Your task to perform on an android device: Open Android settings Image 0: 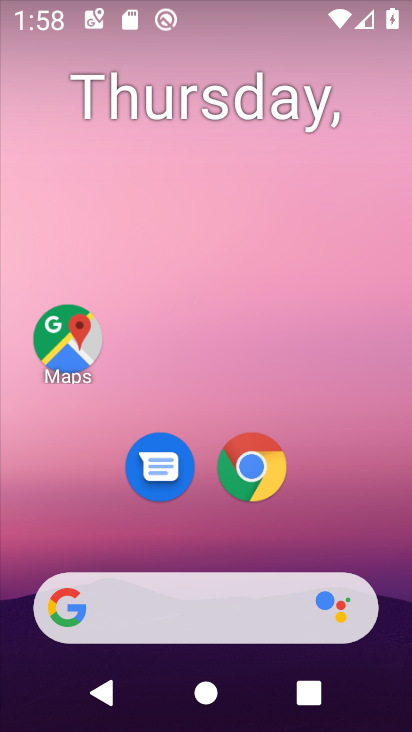
Step 0: drag from (194, 554) to (119, 0)
Your task to perform on an android device: Open Android settings Image 1: 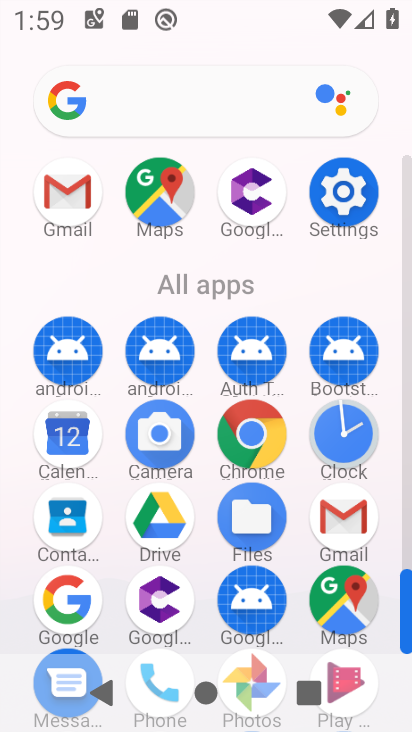
Step 1: click (331, 164)
Your task to perform on an android device: Open Android settings Image 2: 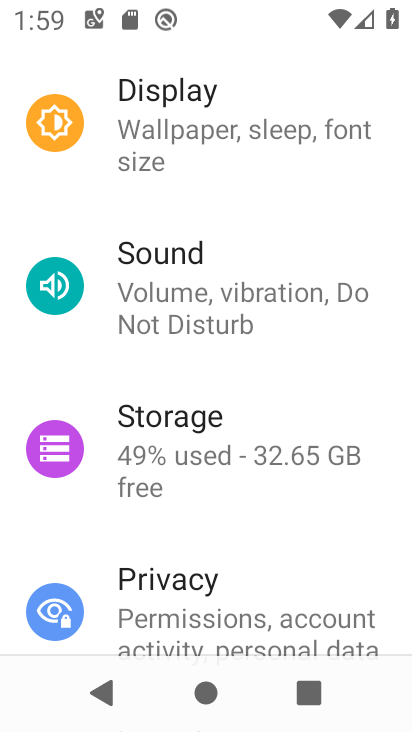
Step 2: drag from (308, 578) to (349, 21)
Your task to perform on an android device: Open Android settings Image 3: 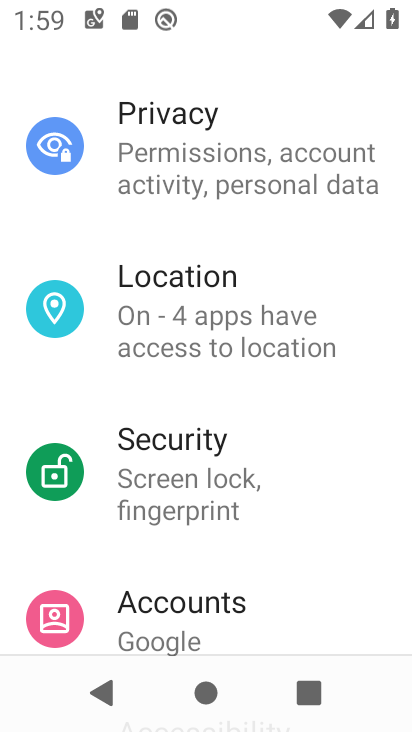
Step 3: drag from (165, 571) to (147, 196)
Your task to perform on an android device: Open Android settings Image 4: 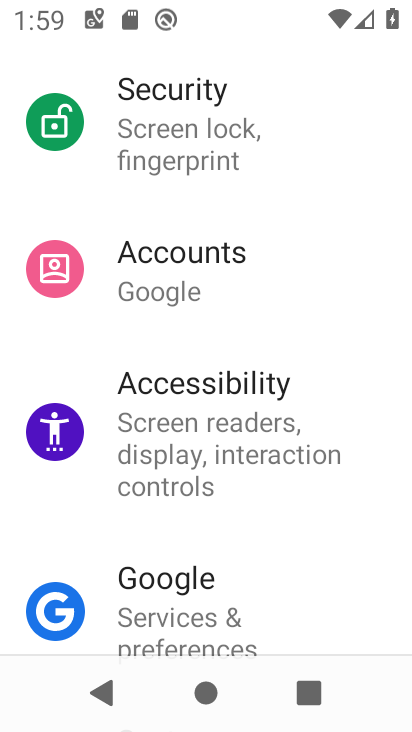
Step 4: drag from (263, 578) to (262, 142)
Your task to perform on an android device: Open Android settings Image 5: 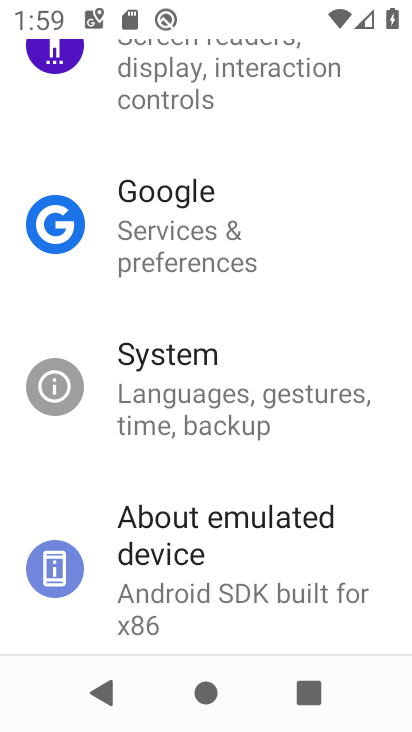
Step 5: click (301, 570)
Your task to perform on an android device: Open Android settings Image 6: 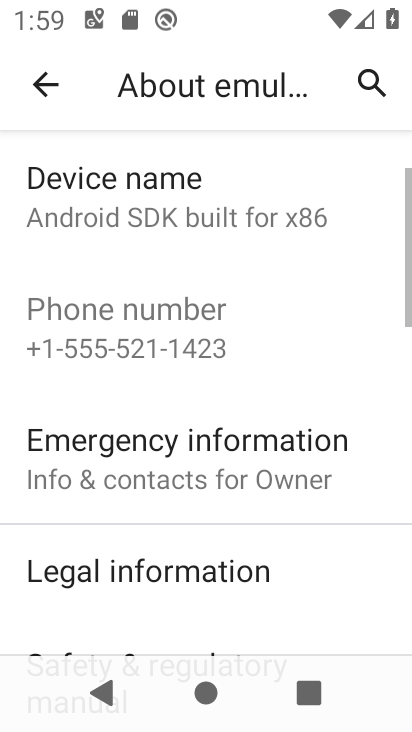
Step 6: drag from (191, 509) to (181, 190)
Your task to perform on an android device: Open Android settings Image 7: 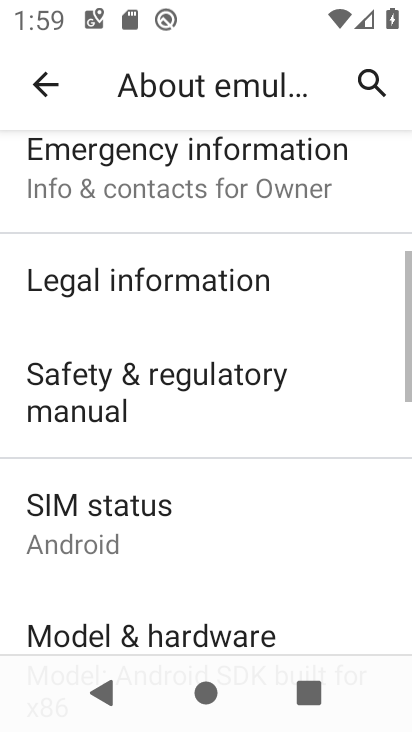
Step 7: drag from (285, 506) to (228, 88)
Your task to perform on an android device: Open Android settings Image 8: 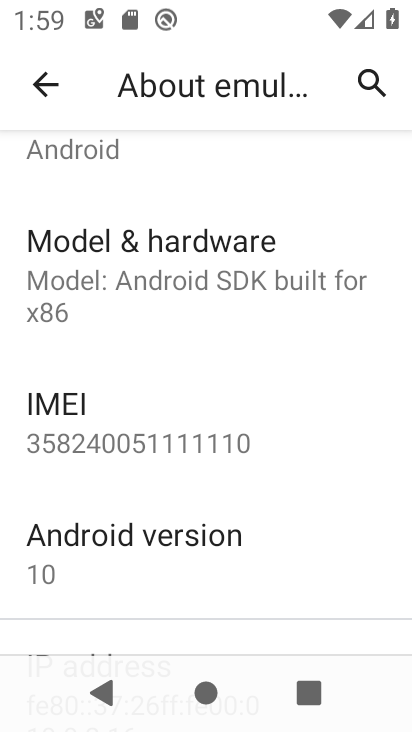
Step 8: click (190, 535)
Your task to perform on an android device: Open Android settings Image 9: 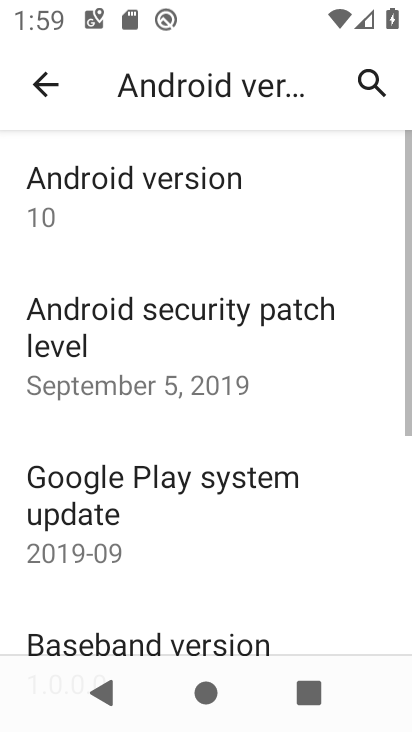
Step 9: click (181, 184)
Your task to perform on an android device: Open Android settings Image 10: 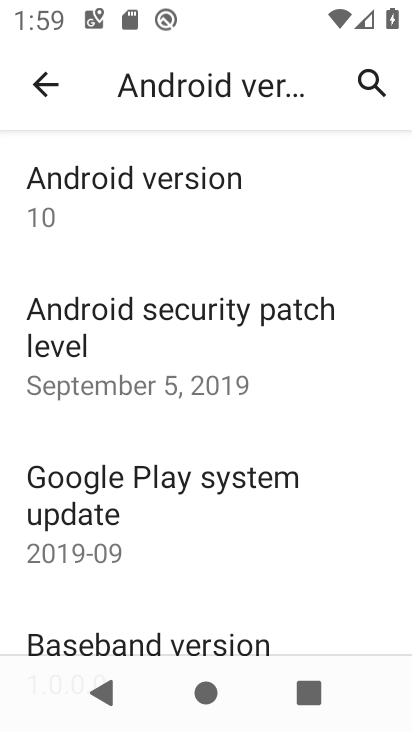
Step 10: task complete